Your task to perform on an android device: Turn off the flashlight Image 0: 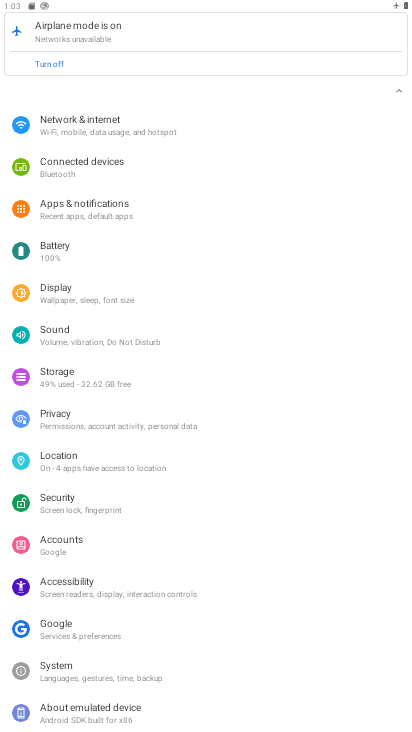
Step 0: drag from (285, 671) to (229, 407)
Your task to perform on an android device: Turn off the flashlight Image 1: 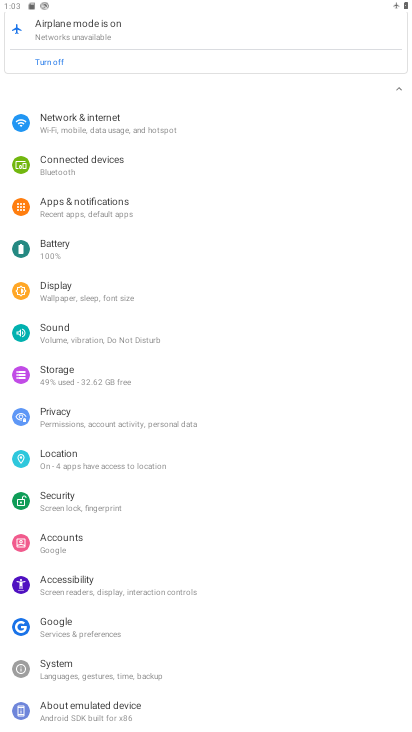
Step 1: task complete